Your task to perform on an android device: search for starred emails in the gmail app Image 0: 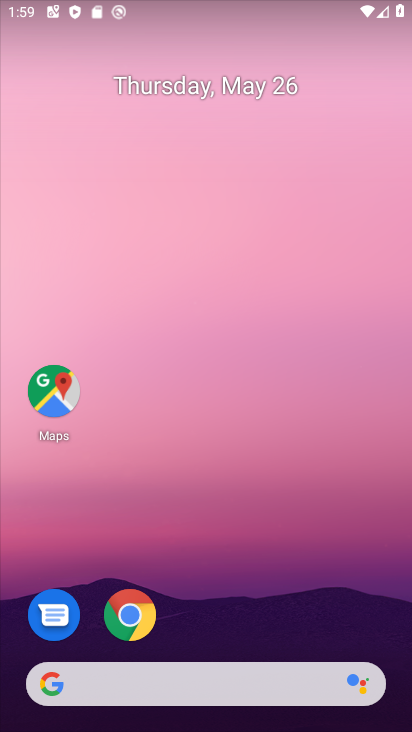
Step 0: drag from (198, 609) to (223, 81)
Your task to perform on an android device: search for starred emails in the gmail app Image 1: 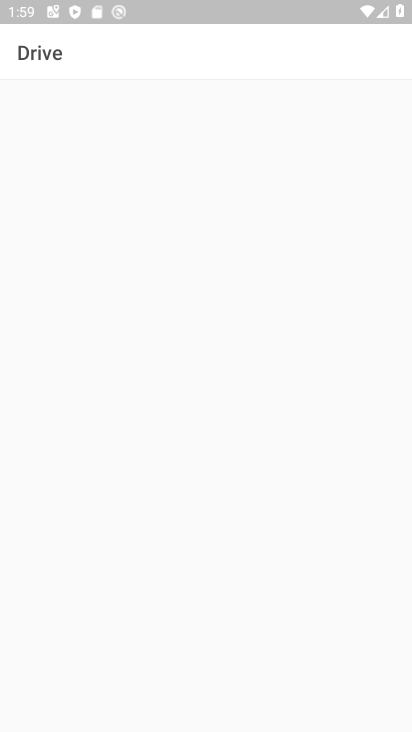
Step 1: press home button
Your task to perform on an android device: search for starred emails in the gmail app Image 2: 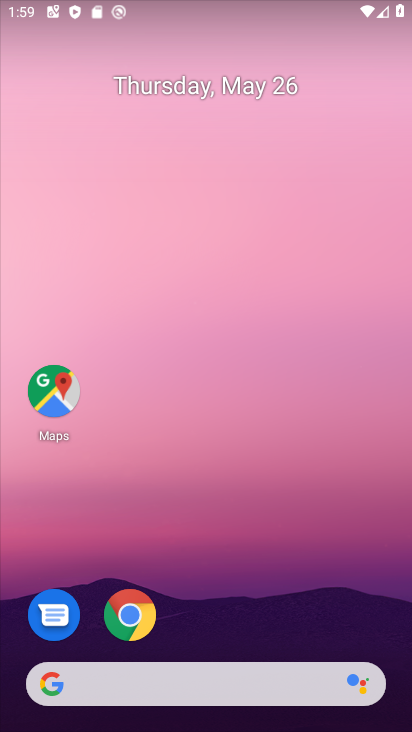
Step 2: drag from (211, 647) to (205, 24)
Your task to perform on an android device: search for starred emails in the gmail app Image 3: 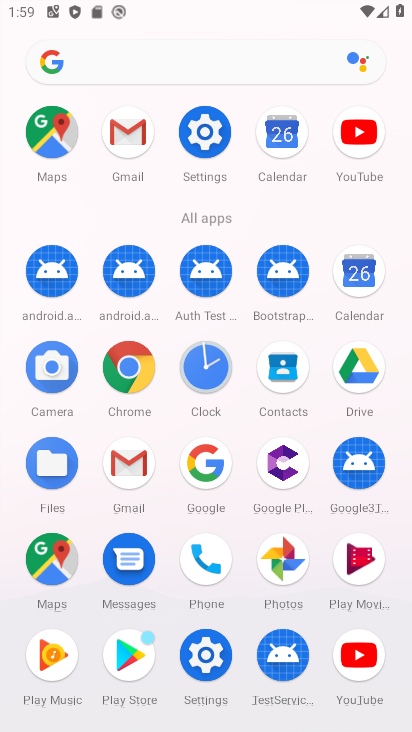
Step 3: click (125, 457)
Your task to perform on an android device: search for starred emails in the gmail app Image 4: 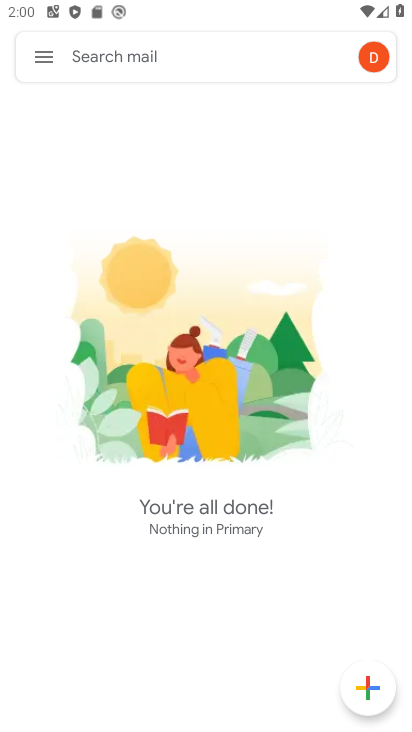
Step 4: click (45, 59)
Your task to perform on an android device: search for starred emails in the gmail app Image 5: 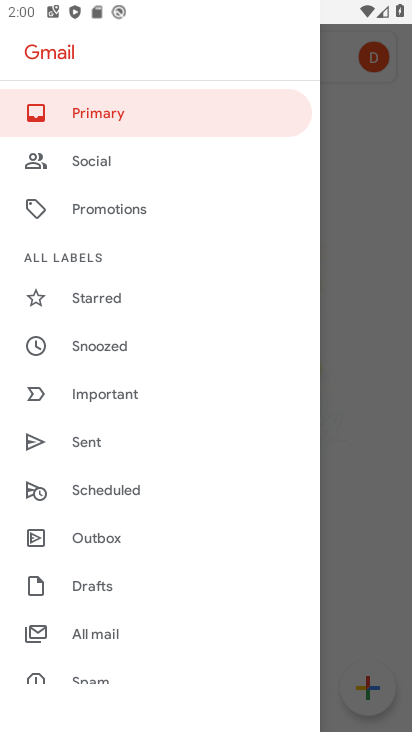
Step 5: click (133, 289)
Your task to perform on an android device: search for starred emails in the gmail app Image 6: 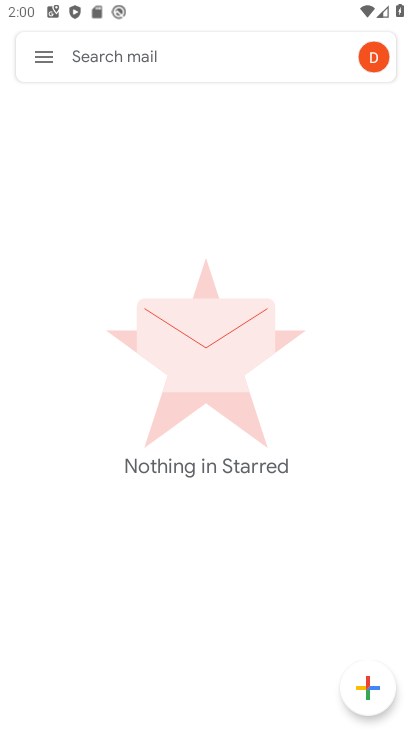
Step 6: task complete